Your task to perform on an android device: turn off airplane mode Image 0: 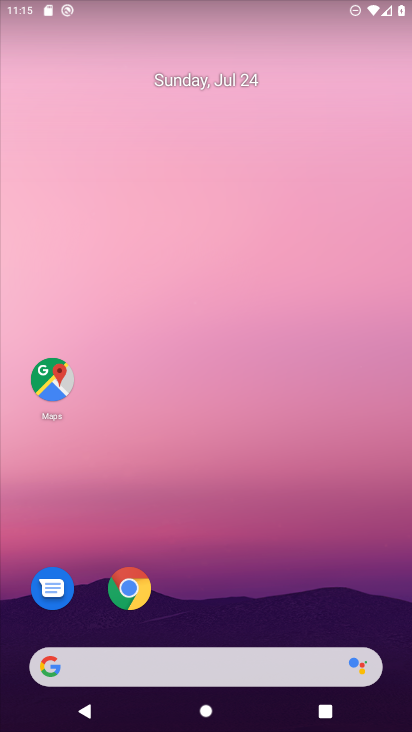
Step 0: drag from (302, 616) to (197, 93)
Your task to perform on an android device: turn off airplane mode Image 1: 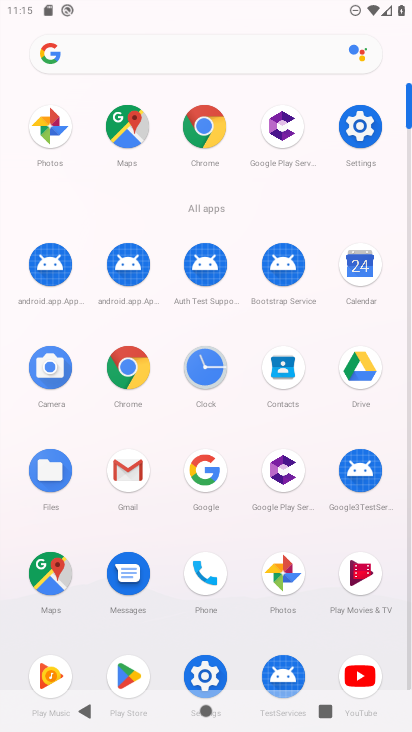
Step 1: click (365, 125)
Your task to perform on an android device: turn off airplane mode Image 2: 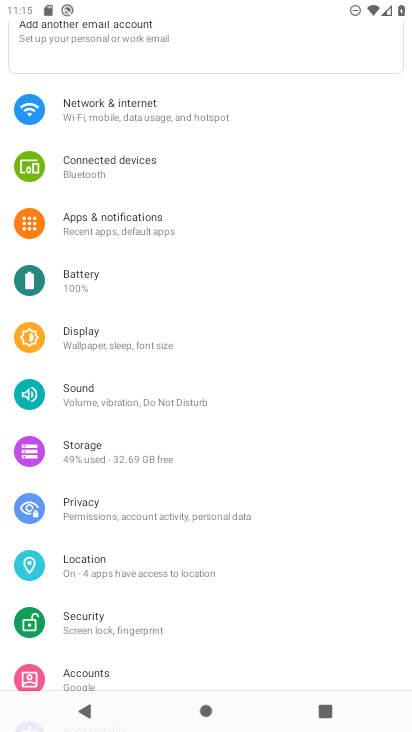
Step 2: click (217, 108)
Your task to perform on an android device: turn off airplane mode Image 3: 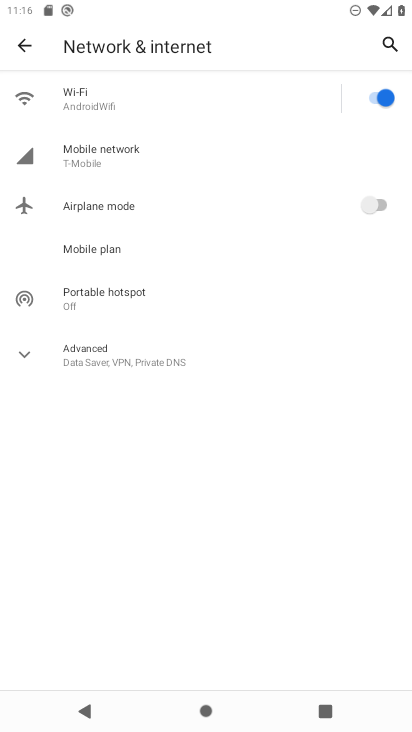
Step 3: task complete